Your task to perform on an android device: Search for sushi restaurants on Maps Image 0: 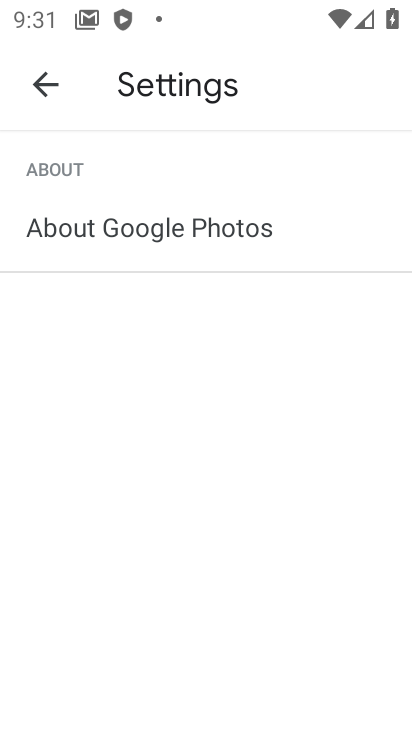
Step 0: click (249, 553)
Your task to perform on an android device: Search for sushi restaurants on Maps Image 1: 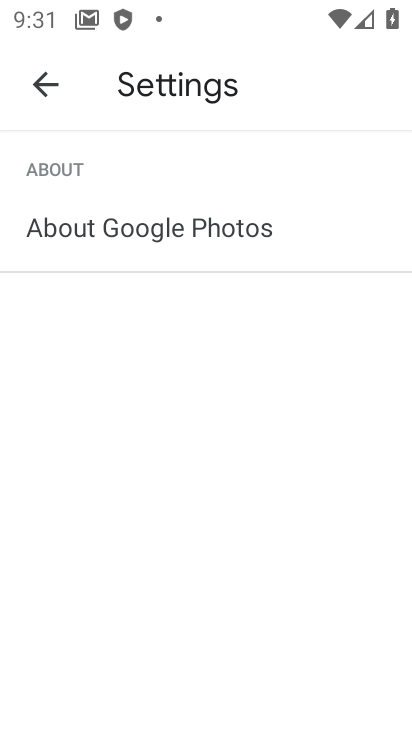
Step 1: press home button
Your task to perform on an android device: Search for sushi restaurants on Maps Image 2: 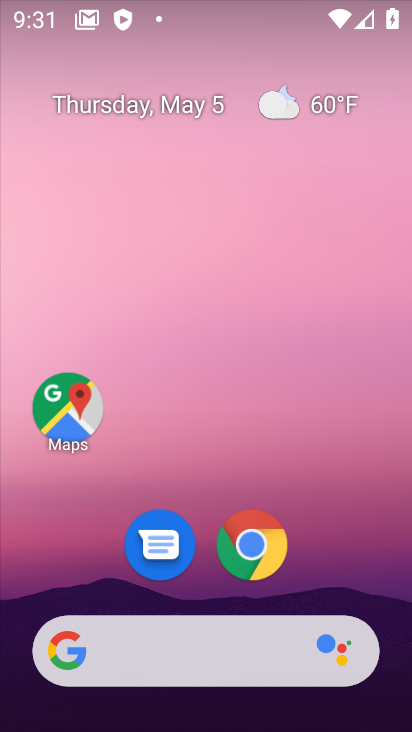
Step 2: click (51, 404)
Your task to perform on an android device: Search for sushi restaurants on Maps Image 3: 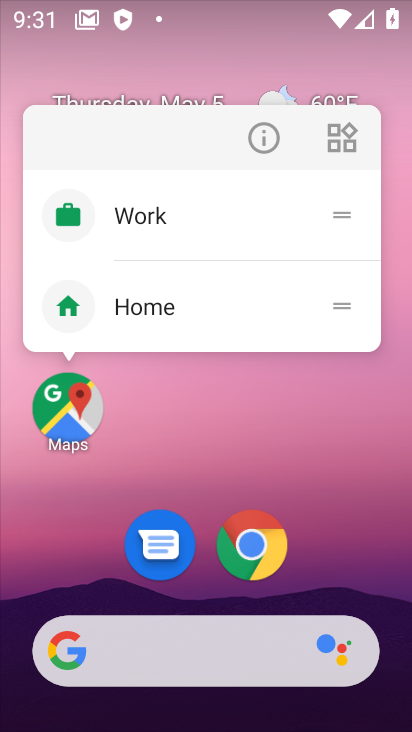
Step 3: click (71, 421)
Your task to perform on an android device: Search for sushi restaurants on Maps Image 4: 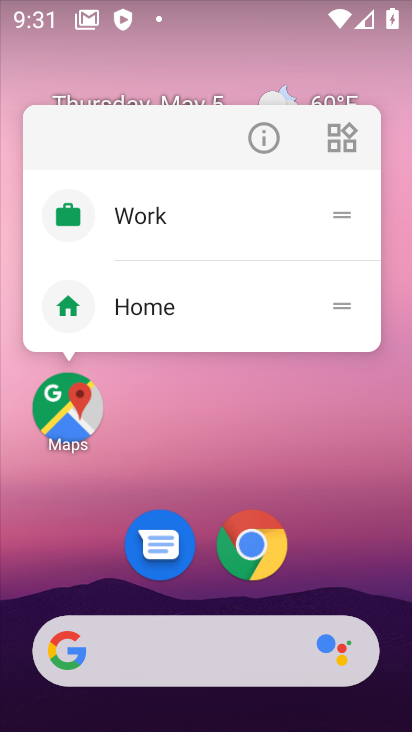
Step 4: click (76, 409)
Your task to perform on an android device: Search for sushi restaurants on Maps Image 5: 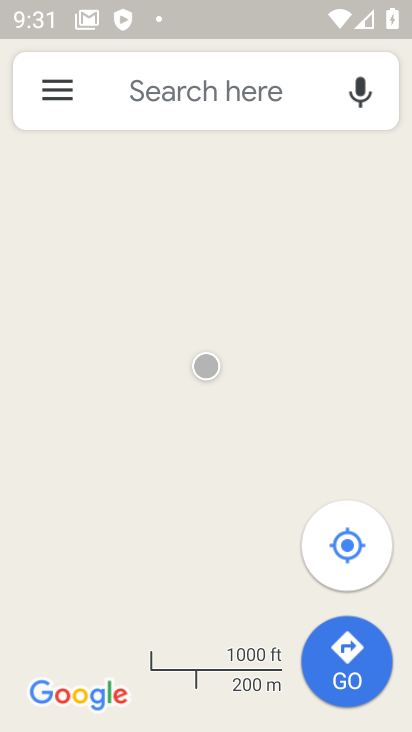
Step 5: click (170, 106)
Your task to perform on an android device: Search for sushi restaurants on Maps Image 6: 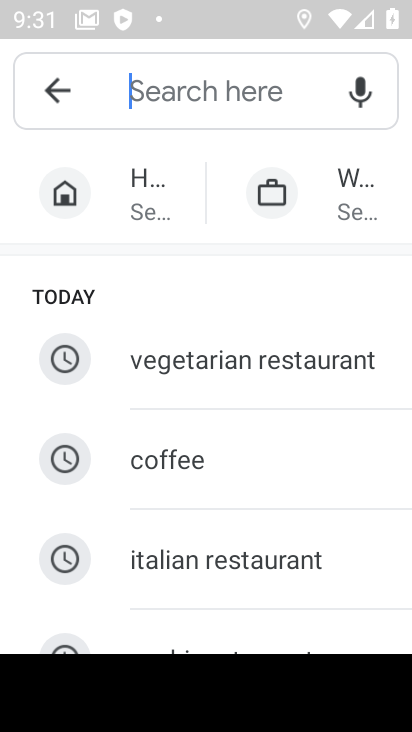
Step 6: type "sushi restaurants"
Your task to perform on an android device: Search for sushi restaurants on Maps Image 7: 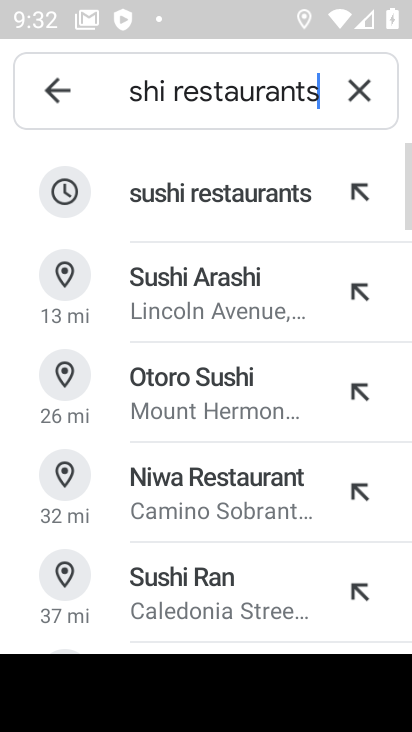
Step 7: click (207, 189)
Your task to perform on an android device: Search for sushi restaurants on Maps Image 8: 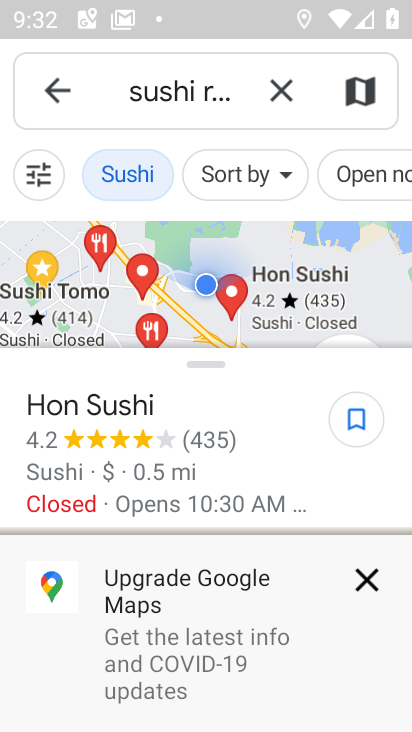
Step 8: click (376, 582)
Your task to perform on an android device: Search for sushi restaurants on Maps Image 9: 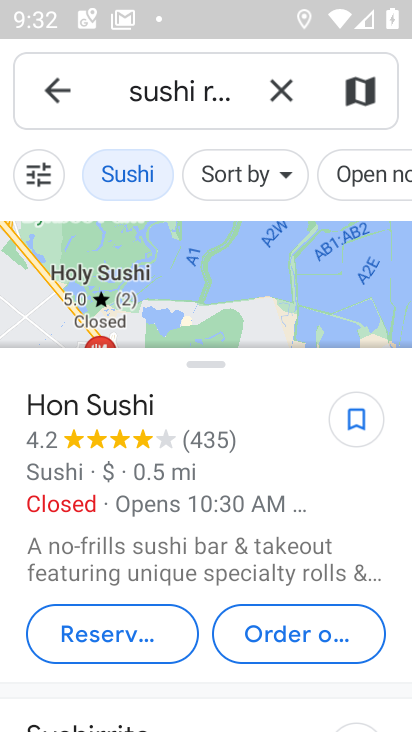
Step 9: task complete